Your task to perform on an android device: Set the phone to "Do not disturb". Image 0: 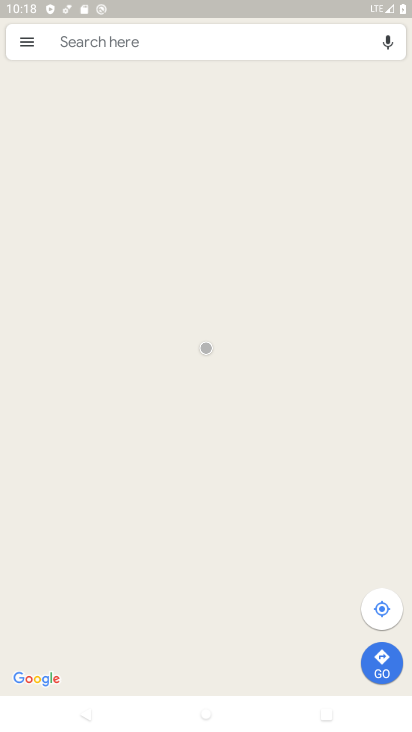
Step 0: press home button
Your task to perform on an android device: Set the phone to "Do not disturb". Image 1: 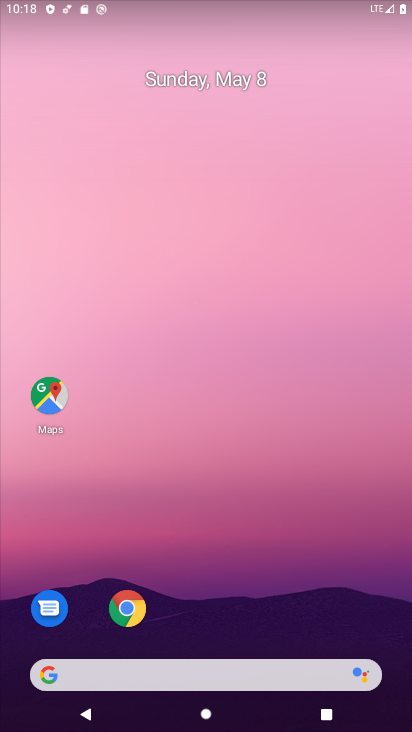
Step 1: drag from (198, 4) to (244, 427)
Your task to perform on an android device: Set the phone to "Do not disturb". Image 2: 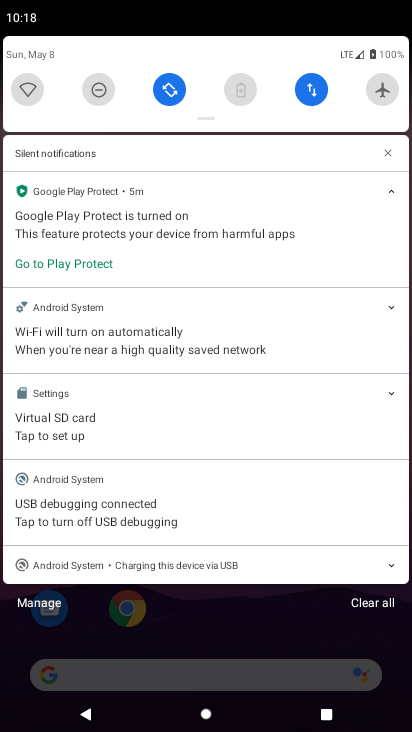
Step 2: click (97, 92)
Your task to perform on an android device: Set the phone to "Do not disturb". Image 3: 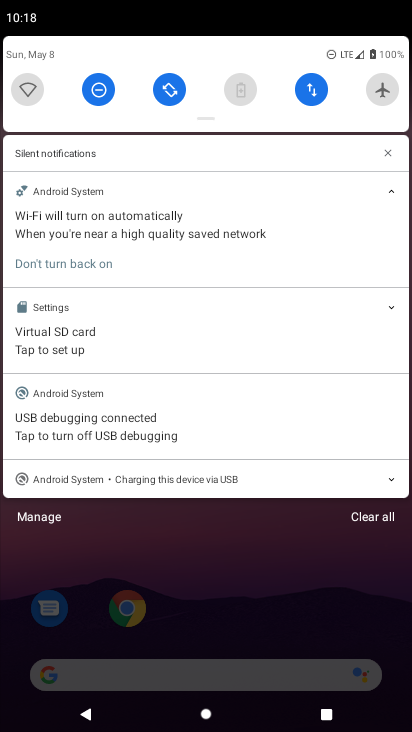
Step 3: task complete